Your task to perform on an android device: turn off improve location accuracy Image 0: 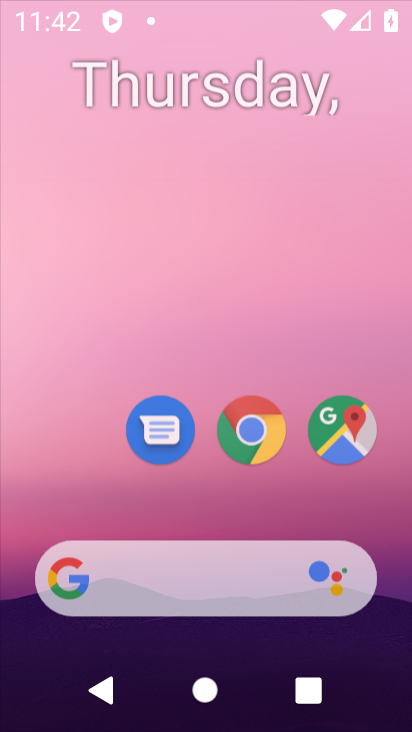
Step 0: drag from (226, 590) to (139, 168)
Your task to perform on an android device: turn off improve location accuracy Image 1: 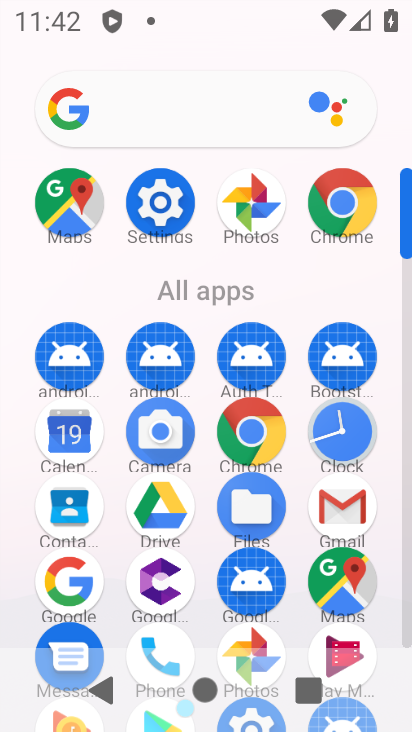
Step 1: click (169, 199)
Your task to perform on an android device: turn off improve location accuracy Image 2: 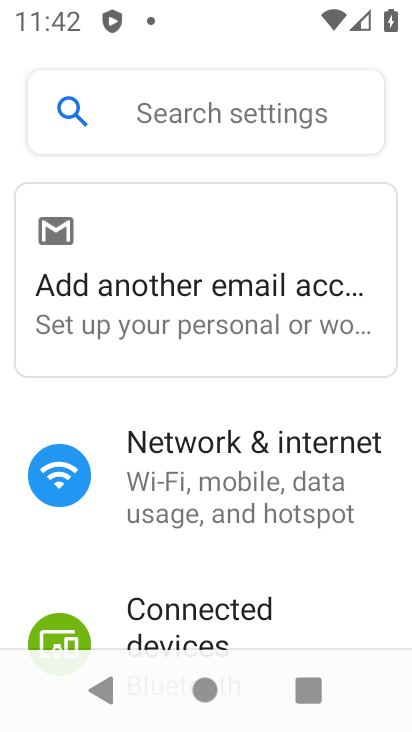
Step 2: drag from (255, 519) to (221, 250)
Your task to perform on an android device: turn off improve location accuracy Image 3: 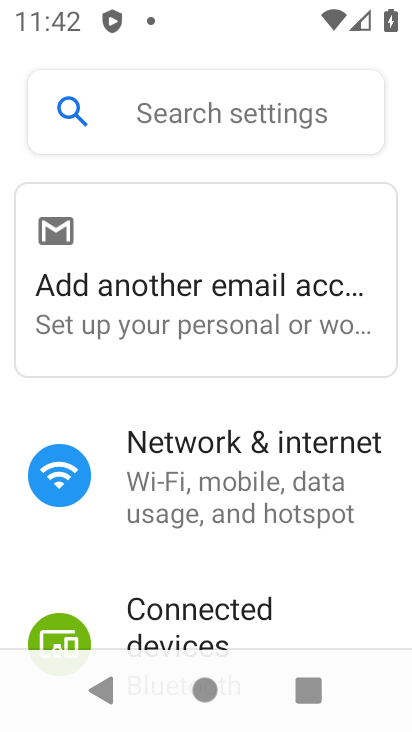
Step 3: drag from (167, 505) to (199, 256)
Your task to perform on an android device: turn off improve location accuracy Image 4: 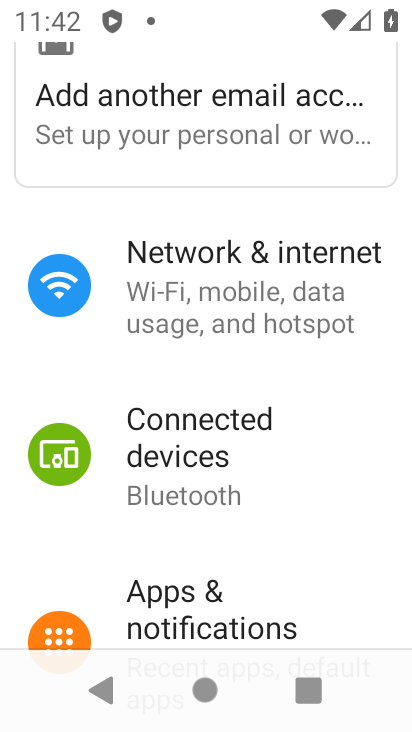
Step 4: drag from (234, 515) to (234, 232)
Your task to perform on an android device: turn off improve location accuracy Image 5: 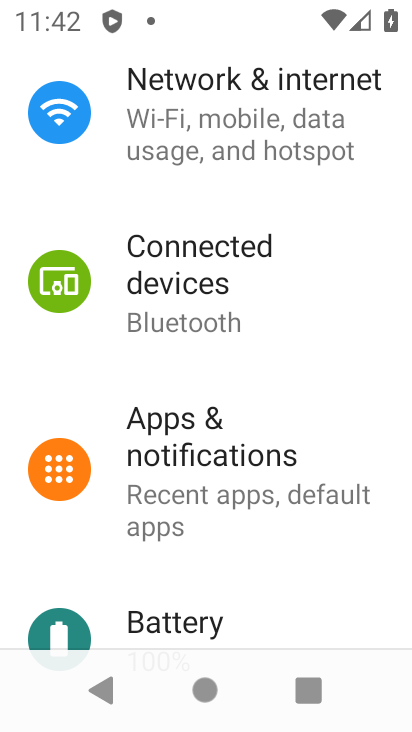
Step 5: drag from (255, 442) to (252, 220)
Your task to perform on an android device: turn off improve location accuracy Image 6: 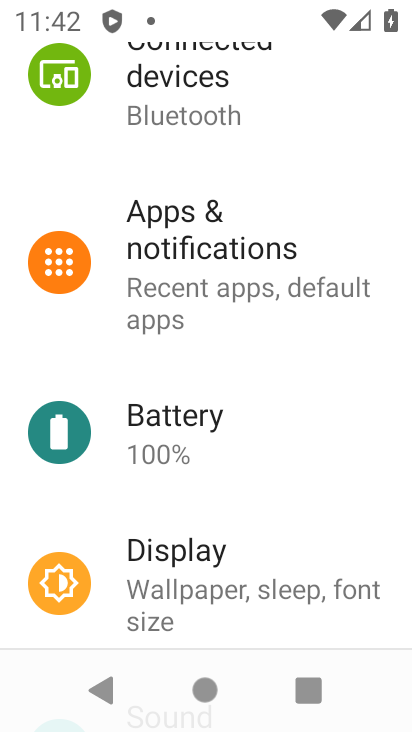
Step 6: drag from (201, 575) to (200, 229)
Your task to perform on an android device: turn off improve location accuracy Image 7: 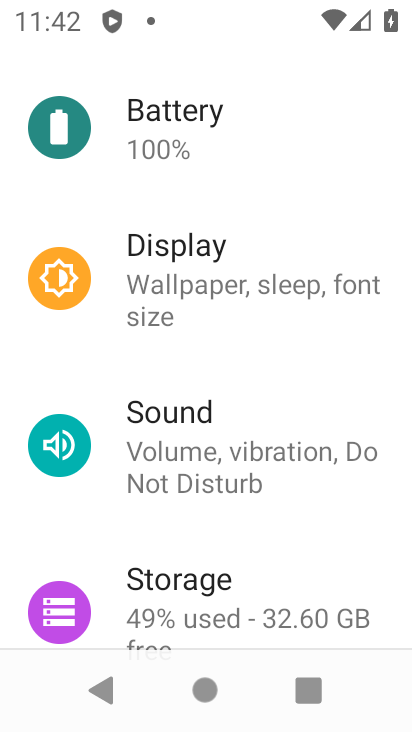
Step 7: drag from (241, 340) to (243, 48)
Your task to perform on an android device: turn off improve location accuracy Image 8: 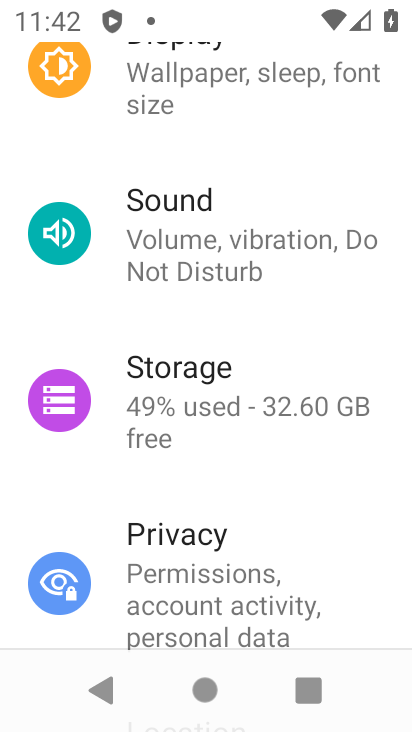
Step 8: drag from (332, 539) to (277, 73)
Your task to perform on an android device: turn off improve location accuracy Image 9: 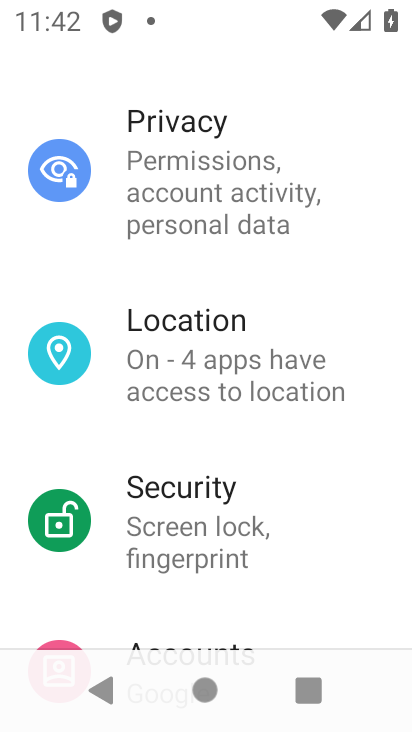
Step 9: drag from (254, 478) to (189, 83)
Your task to perform on an android device: turn off improve location accuracy Image 10: 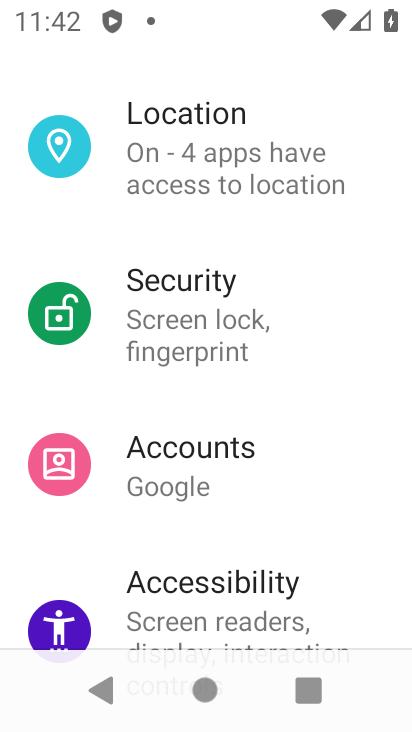
Step 10: click (179, 127)
Your task to perform on an android device: turn off improve location accuracy Image 11: 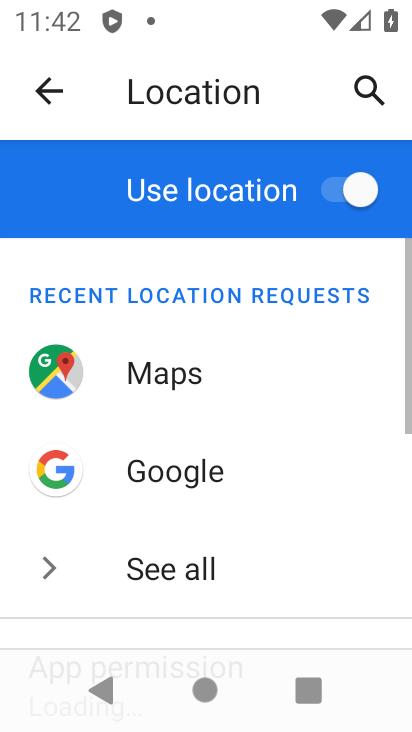
Step 11: drag from (182, 421) to (191, 142)
Your task to perform on an android device: turn off improve location accuracy Image 12: 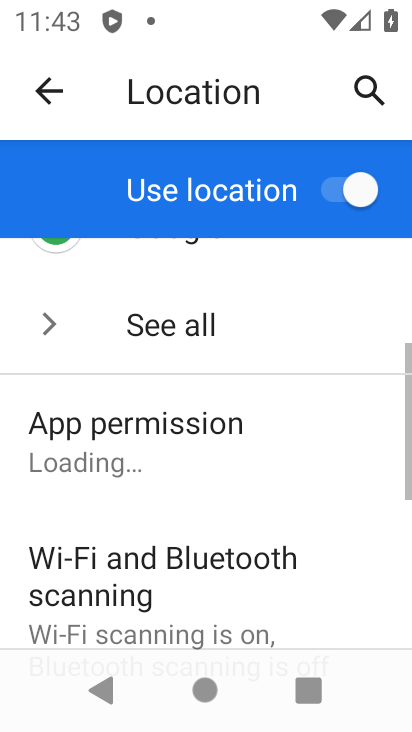
Step 12: drag from (220, 429) to (225, 182)
Your task to perform on an android device: turn off improve location accuracy Image 13: 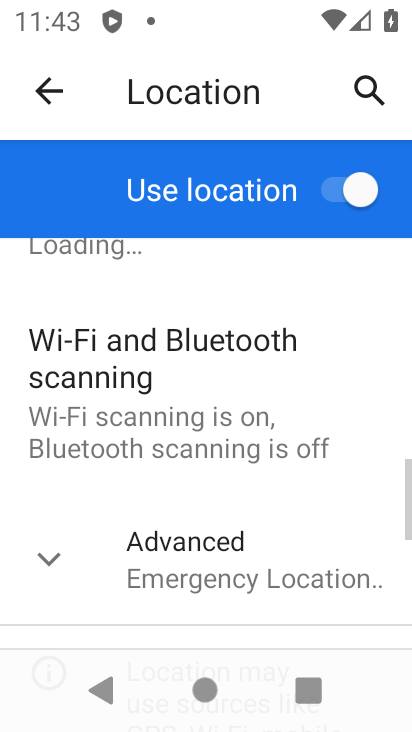
Step 13: drag from (267, 232) to (273, 171)
Your task to perform on an android device: turn off improve location accuracy Image 14: 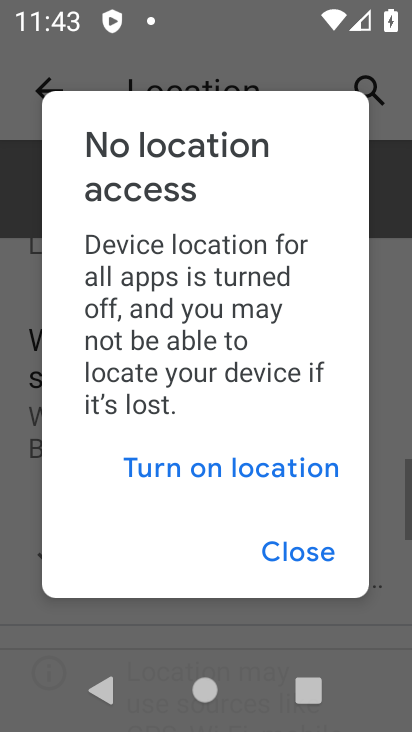
Step 14: click (209, 570)
Your task to perform on an android device: turn off improve location accuracy Image 15: 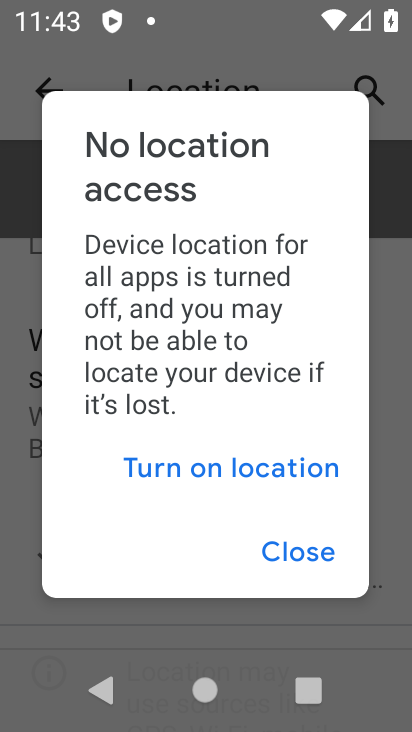
Step 15: click (268, 547)
Your task to perform on an android device: turn off improve location accuracy Image 16: 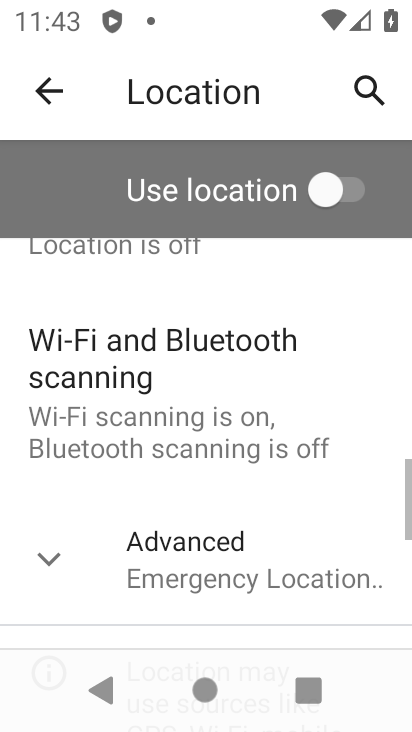
Step 16: click (336, 200)
Your task to perform on an android device: turn off improve location accuracy Image 17: 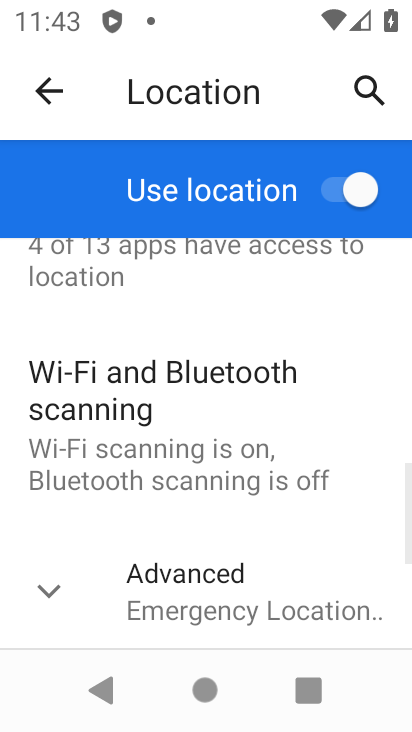
Step 17: click (200, 604)
Your task to perform on an android device: turn off improve location accuracy Image 18: 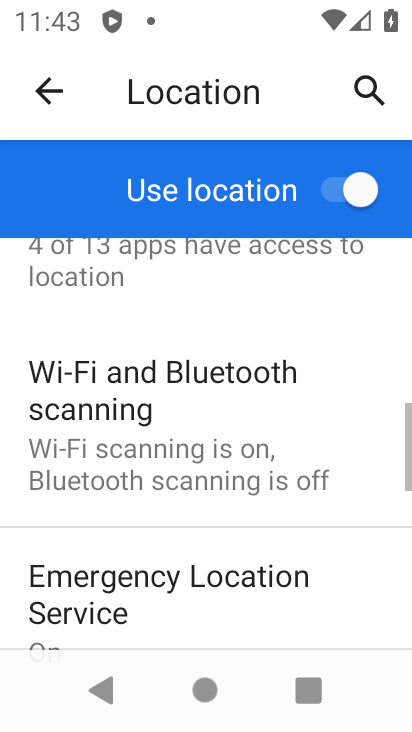
Step 18: drag from (194, 596) to (228, 334)
Your task to perform on an android device: turn off improve location accuracy Image 19: 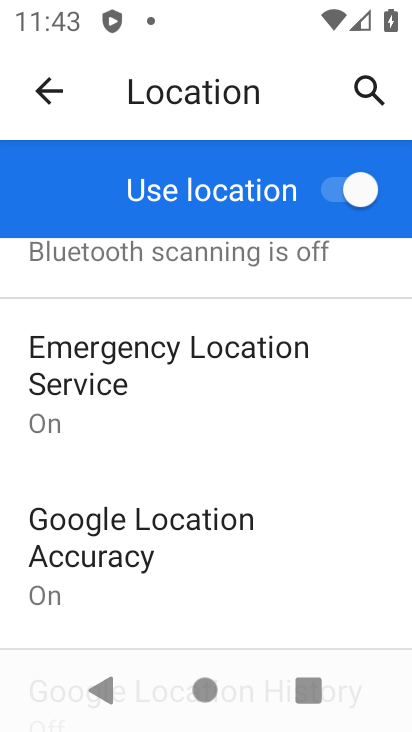
Step 19: click (86, 503)
Your task to perform on an android device: turn off improve location accuracy Image 20: 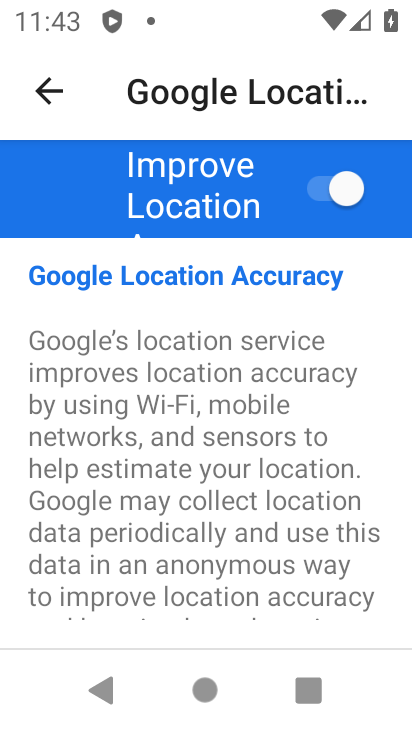
Step 20: click (339, 188)
Your task to perform on an android device: turn off improve location accuracy Image 21: 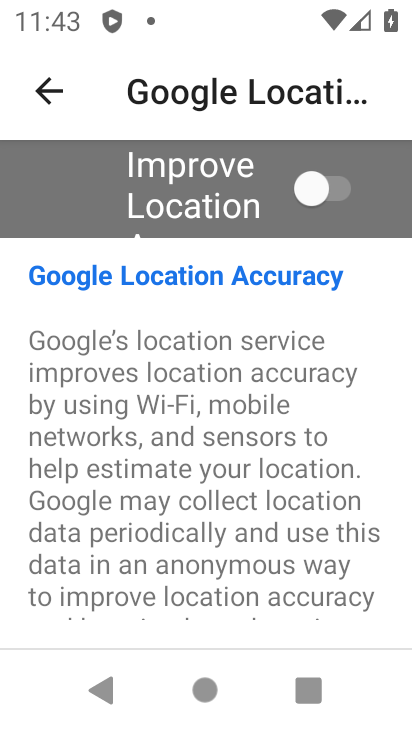
Step 21: task complete